Your task to perform on an android device: add a label to a message in the gmail app Image 0: 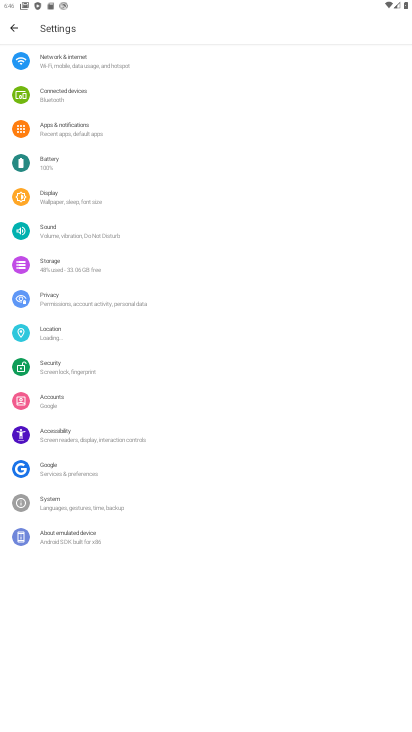
Step 0: press home button
Your task to perform on an android device: add a label to a message in the gmail app Image 1: 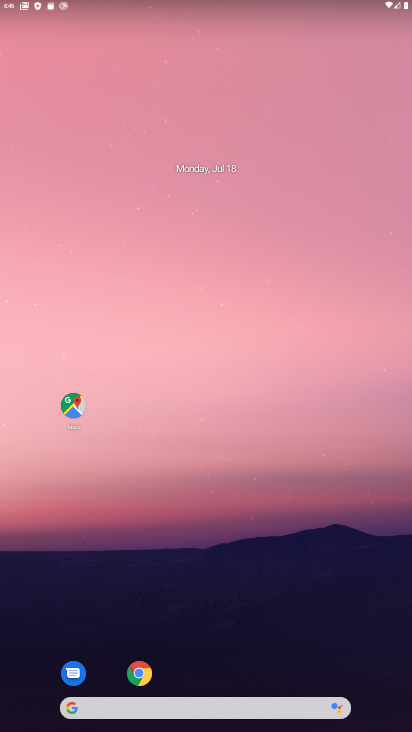
Step 1: drag from (257, 569) to (213, 158)
Your task to perform on an android device: add a label to a message in the gmail app Image 2: 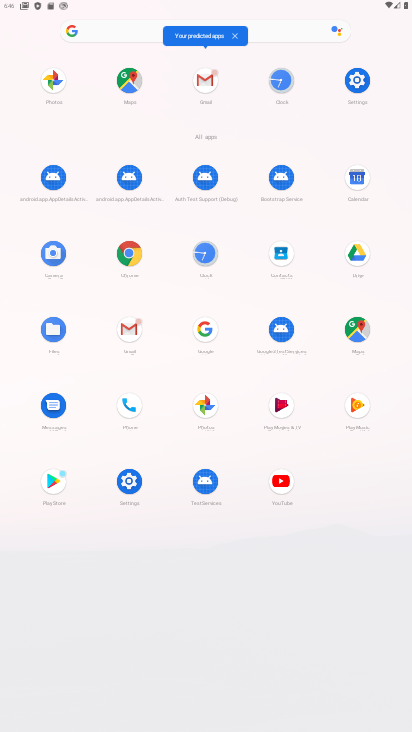
Step 2: click (129, 326)
Your task to perform on an android device: add a label to a message in the gmail app Image 3: 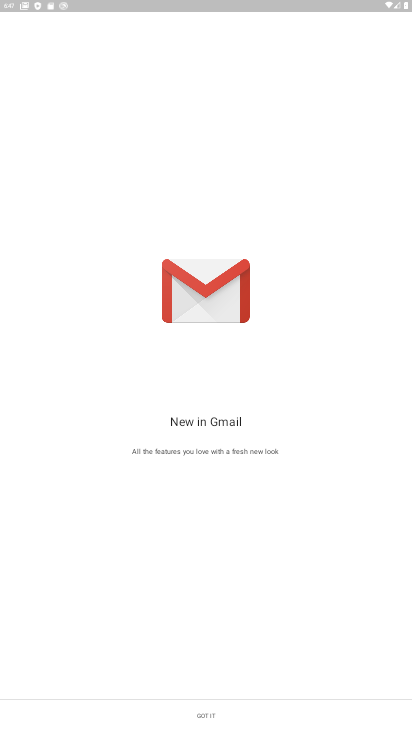
Step 3: click (203, 713)
Your task to perform on an android device: add a label to a message in the gmail app Image 4: 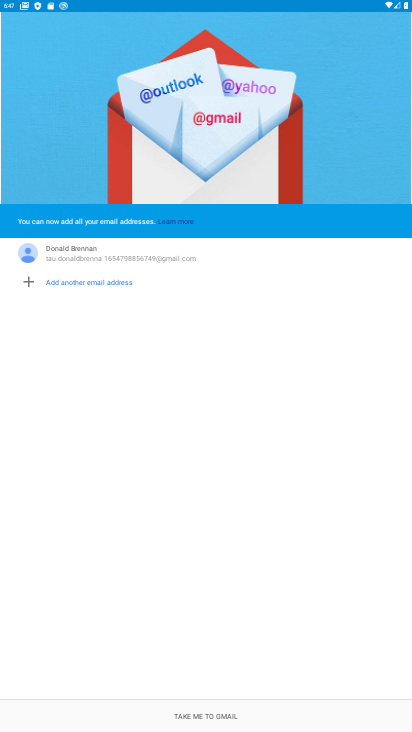
Step 4: click (203, 713)
Your task to perform on an android device: add a label to a message in the gmail app Image 5: 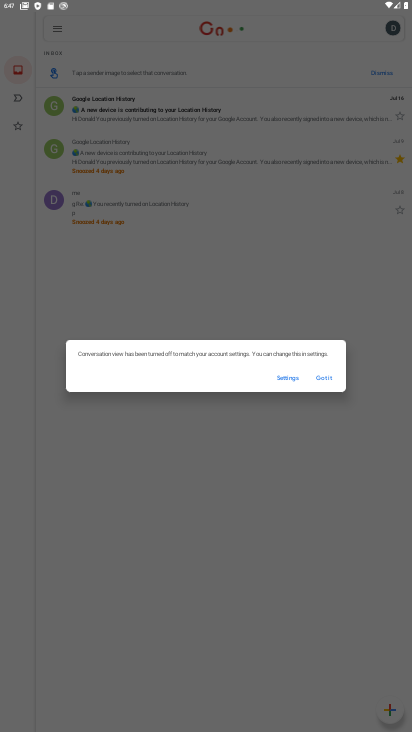
Step 5: click (317, 381)
Your task to perform on an android device: add a label to a message in the gmail app Image 6: 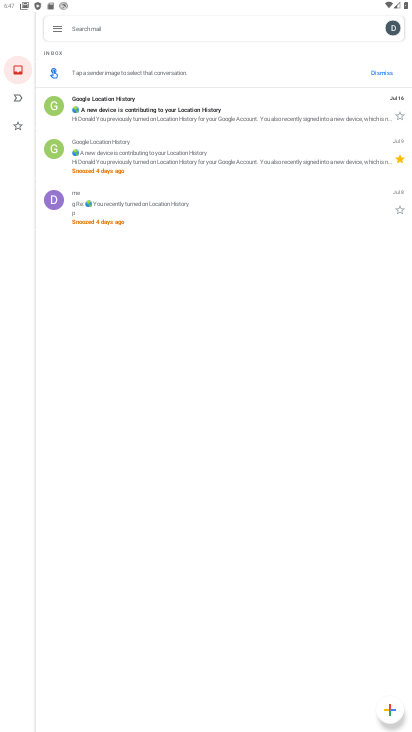
Step 6: click (103, 92)
Your task to perform on an android device: add a label to a message in the gmail app Image 7: 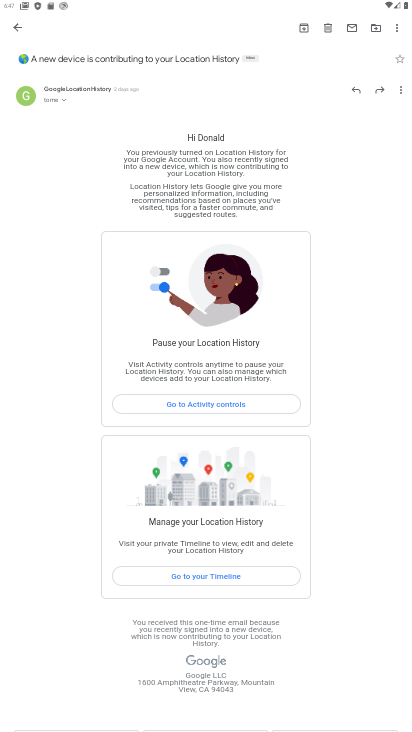
Step 7: click (397, 28)
Your task to perform on an android device: add a label to a message in the gmail app Image 8: 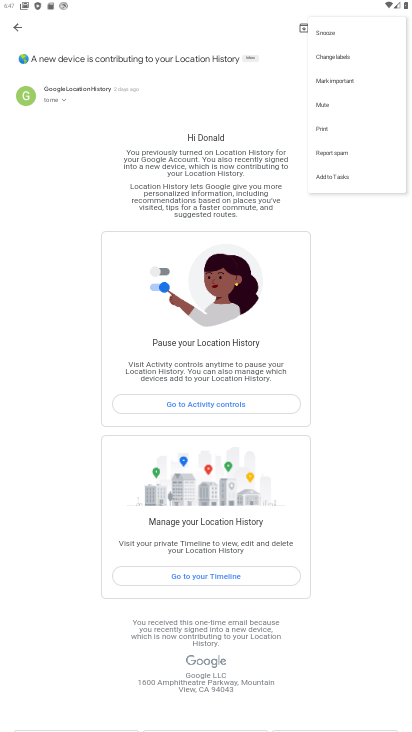
Step 8: drag from (286, 252) to (353, 7)
Your task to perform on an android device: add a label to a message in the gmail app Image 9: 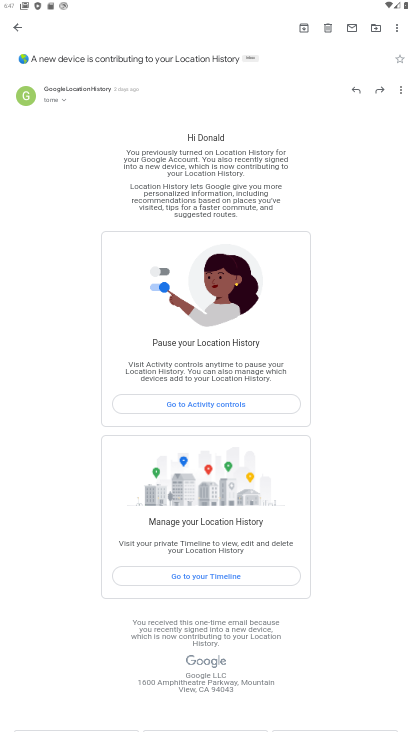
Step 9: click (398, 26)
Your task to perform on an android device: add a label to a message in the gmail app Image 10: 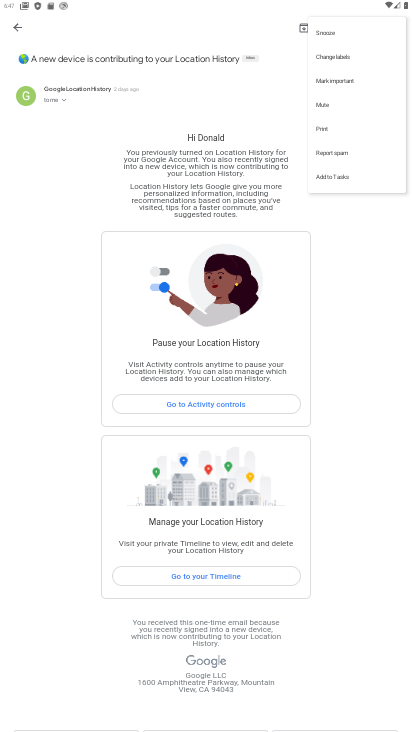
Step 10: task complete